Your task to perform on an android device: turn off javascript in the chrome app Image 0: 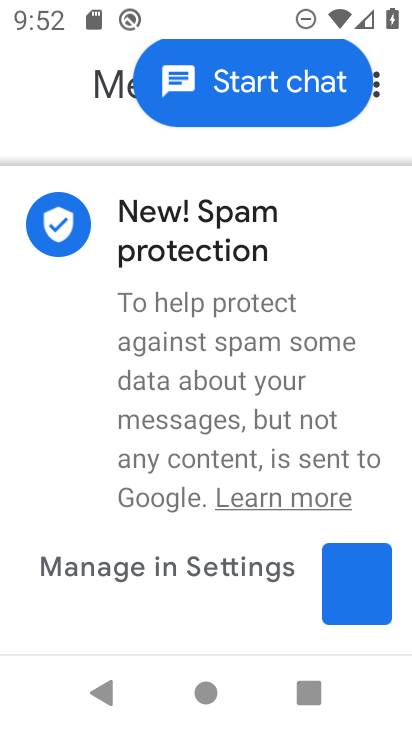
Step 0: press home button
Your task to perform on an android device: turn off javascript in the chrome app Image 1: 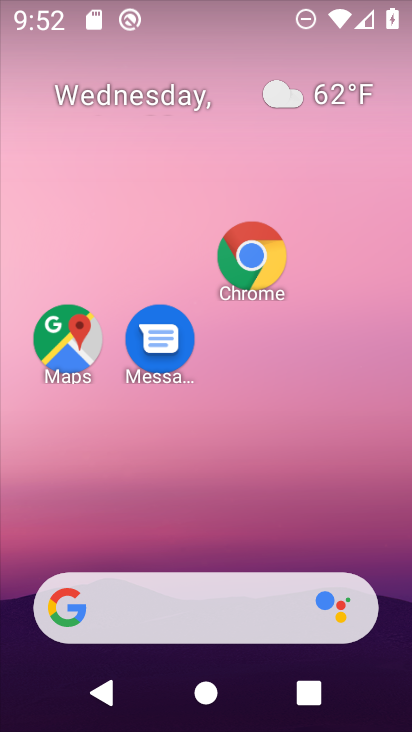
Step 1: click (258, 257)
Your task to perform on an android device: turn off javascript in the chrome app Image 2: 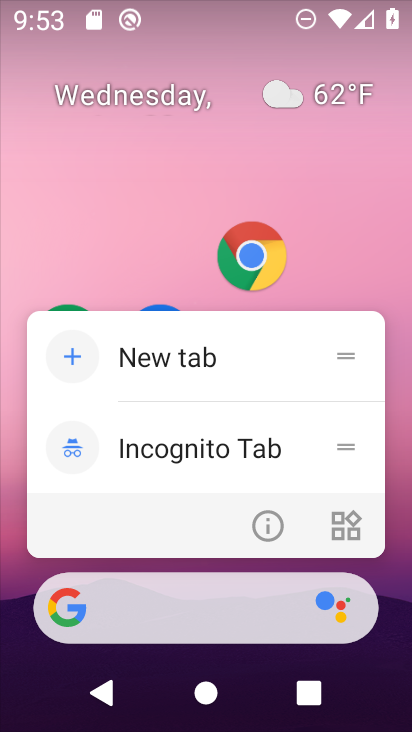
Step 2: click (251, 256)
Your task to perform on an android device: turn off javascript in the chrome app Image 3: 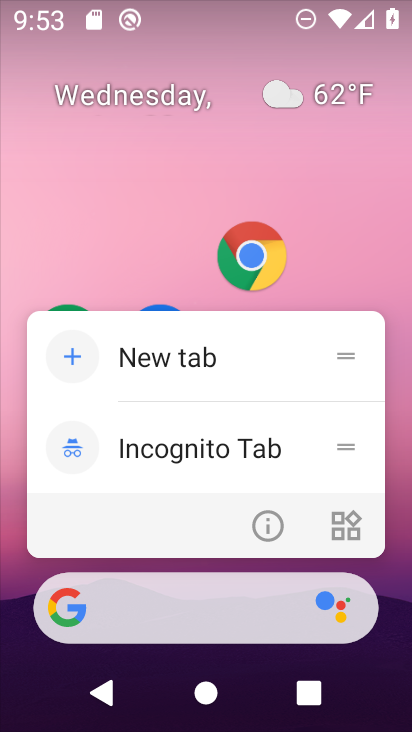
Step 3: click (251, 256)
Your task to perform on an android device: turn off javascript in the chrome app Image 4: 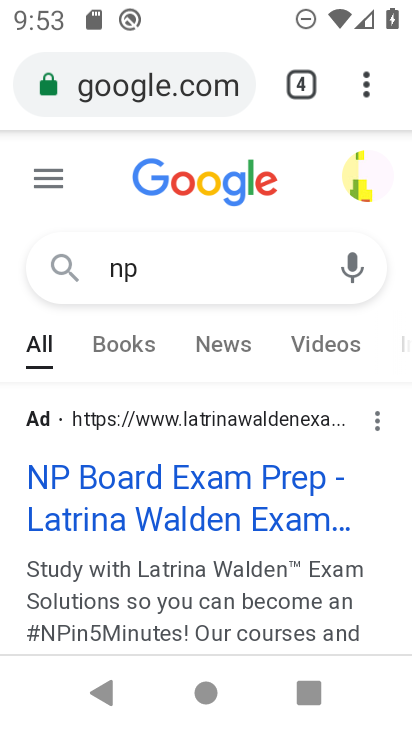
Step 4: click (363, 81)
Your task to perform on an android device: turn off javascript in the chrome app Image 5: 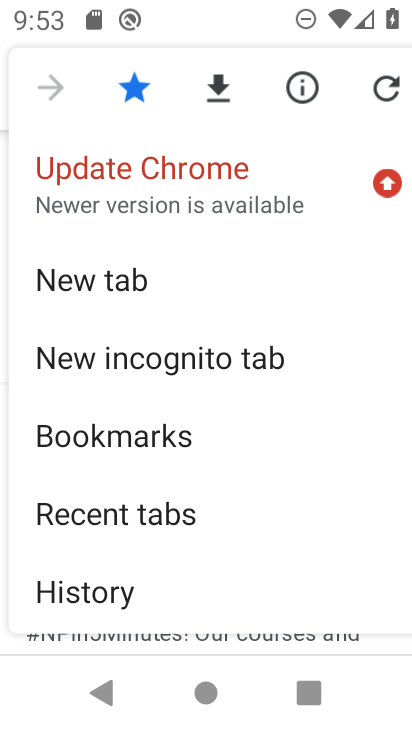
Step 5: drag from (192, 532) to (172, 68)
Your task to perform on an android device: turn off javascript in the chrome app Image 6: 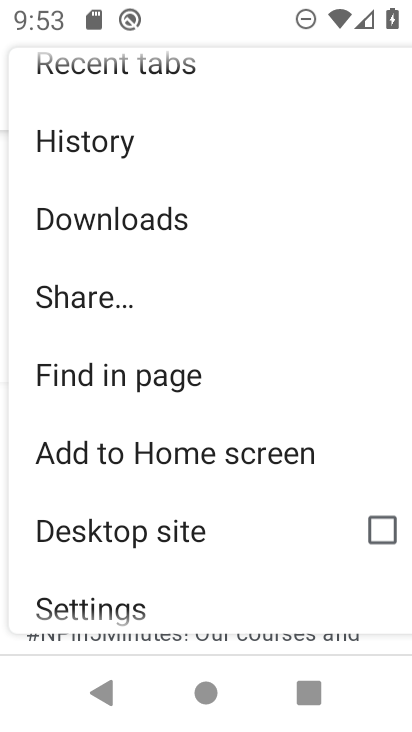
Step 6: drag from (176, 539) to (196, 242)
Your task to perform on an android device: turn off javascript in the chrome app Image 7: 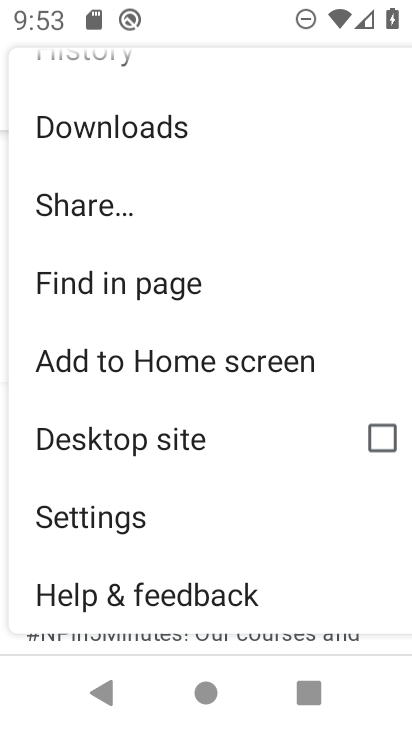
Step 7: click (130, 513)
Your task to perform on an android device: turn off javascript in the chrome app Image 8: 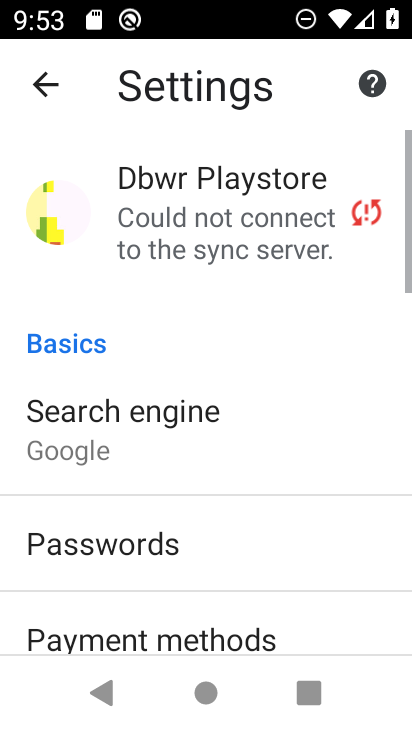
Step 8: drag from (292, 544) to (247, 59)
Your task to perform on an android device: turn off javascript in the chrome app Image 9: 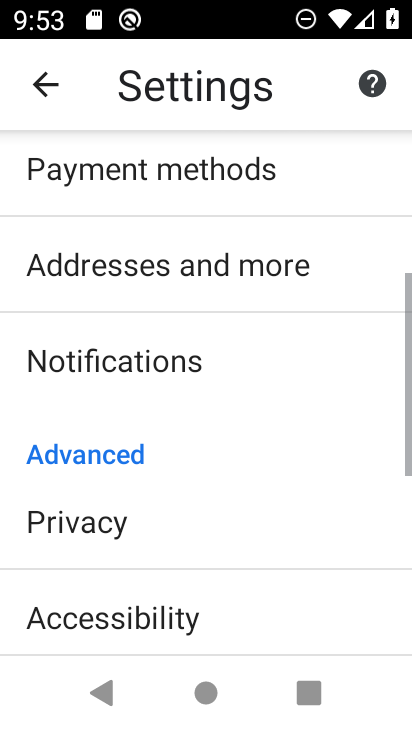
Step 9: drag from (191, 577) to (182, 215)
Your task to perform on an android device: turn off javascript in the chrome app Image 10: 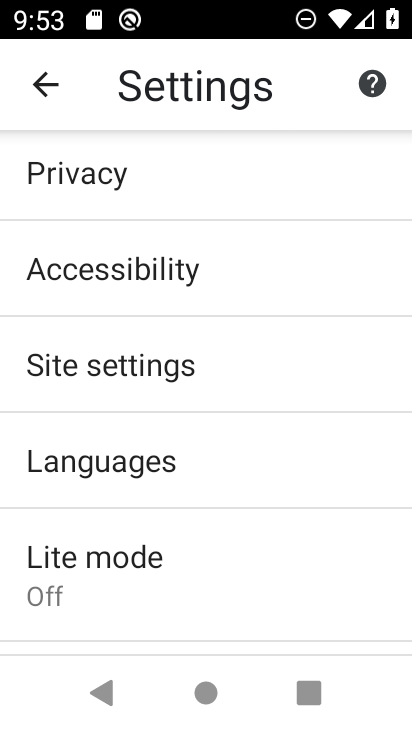
Step 10: click (112, 364)
Your task to perform on an android device: turn off javascript in the chrome app Image 11: 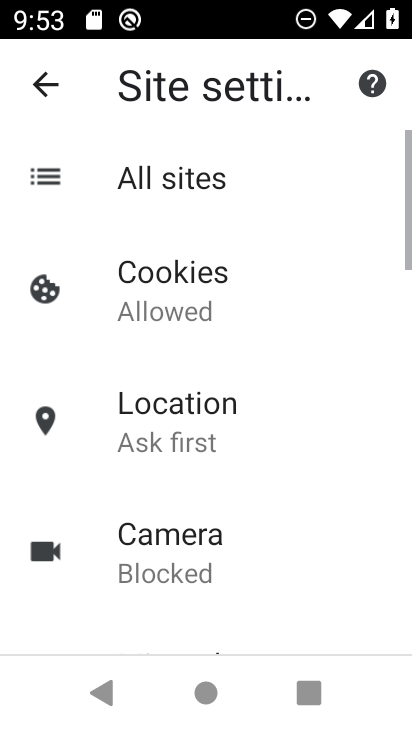
Step 11: drag from (198, 541) to (188, 160)
Your task to perform on an android device: turn off javascript in the chrome app Image 12: 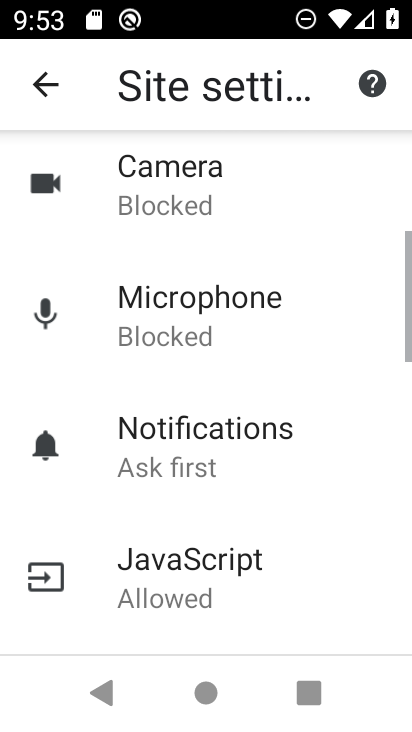
Step 12: click (201, 569)
Your task to perform on an android device: turn off javascript in the chrome app Image 13: 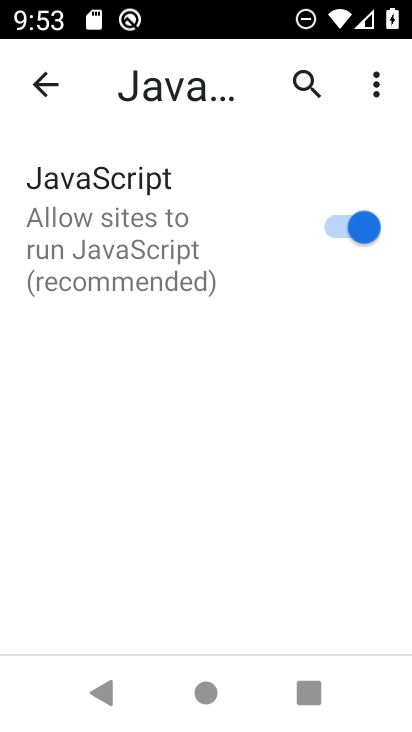
Step 13: click (351, 218)
Your task to perform on an android device: turn off javascript in the chrome app Image 14: 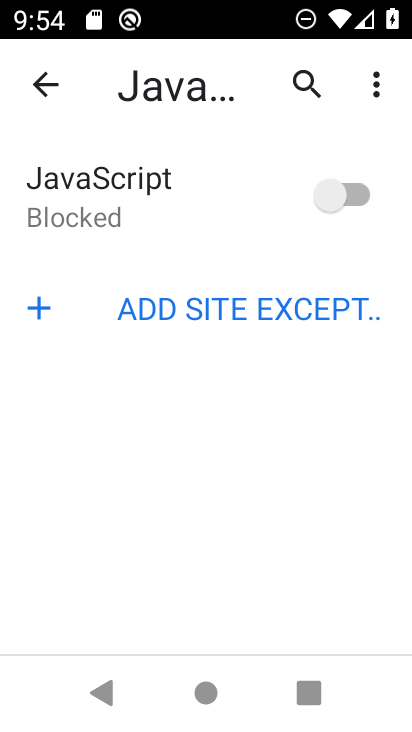
Step 14: task complete